Your task to perform on an android device: open app "Spotify" (install if not already installed) and enter user name: "infallible@icloud.com" and password: "implored" Image 0: 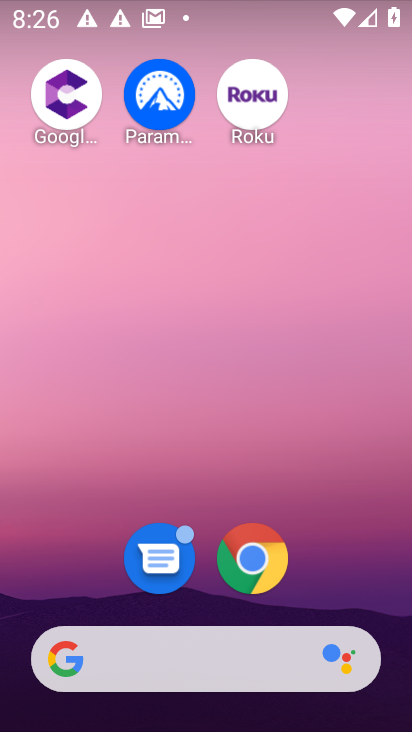
Step 0: drag from (246, 651) to (324, 1)
Your task to perform on an android device: open app "Spotify" (install if not already installed) and enter user name: "infallible@icloud.com" and password: "implored" Image 1: 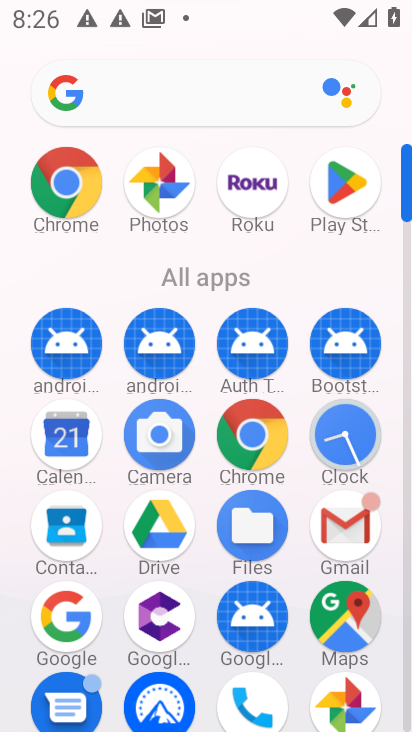
Step 1: click (340, 190)
Your task to perform on an android device: open app "Spotify" (install if not already installed) and enter user name: "infallible@icloud.com" and password: "implored" Image 2: 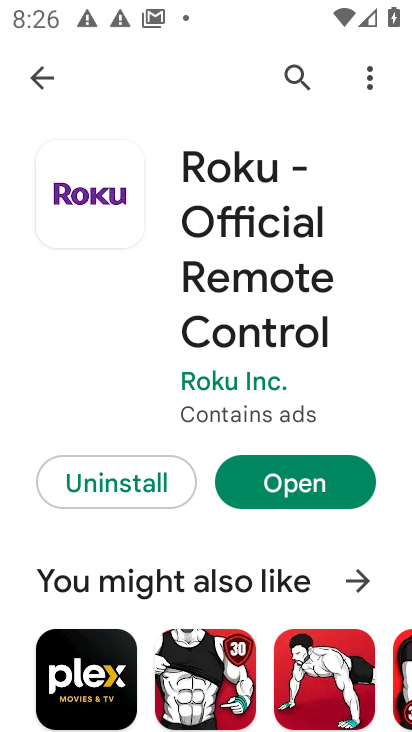
Step 2: click (307, 71)
Your task to perform on an android device: open app "Spotify" (install if not already installed) and enter user name: "infallible@icloud.com" and password: "implored" Image 3: 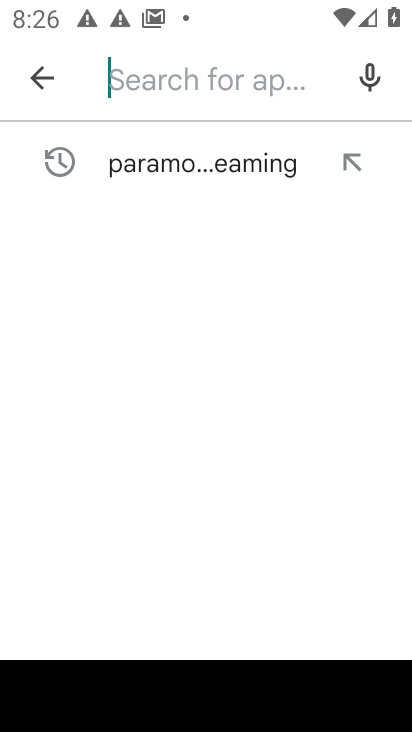
Step 3: type "spotify"
Your task to perform on an android device: open app "Spotify" (install if not already installed) and enter user name: "infallible@icloud.com" and password: "implored" Image 4: 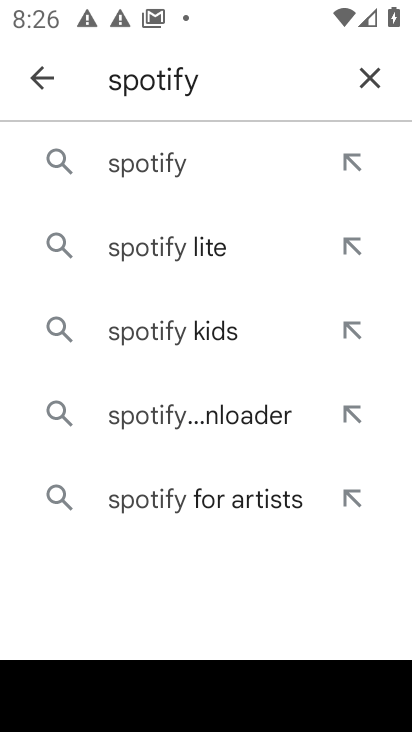
Step 4: click (118, 166)
Your task to perform on an android device: open app "Spotify" (install if not already installed) and enter user name: "infallible@icloud.com" and password: "implored" Image 5: 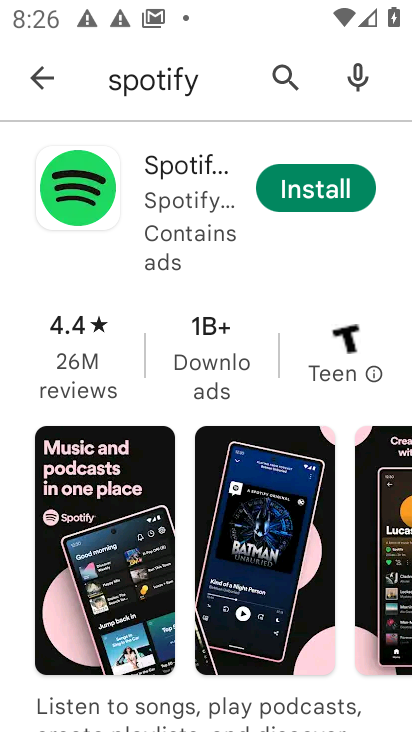
Step 5: click (312, 183)
Your task to perform on an android device: open app "Spotify" (install if not already installed) and enter user name: "infallible@icloud.com" and password: "implored" Image 6: 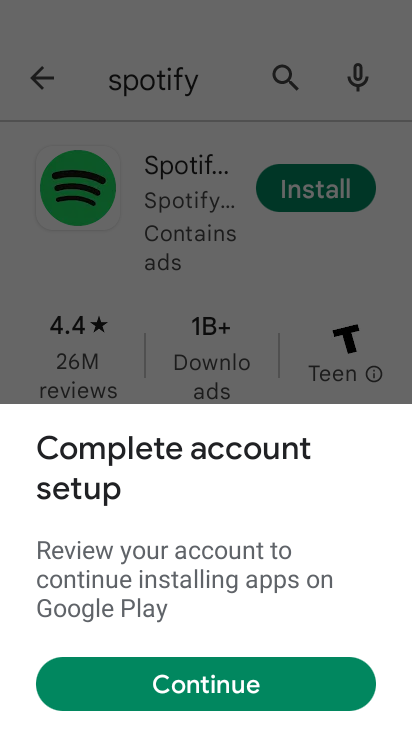
Step 6: click (123, 656)
Your task to perform on an android device: open app "Spotify" (install if not already installed) and enter user name: "infallible@icloud.com" and password: "implored" Image 7: 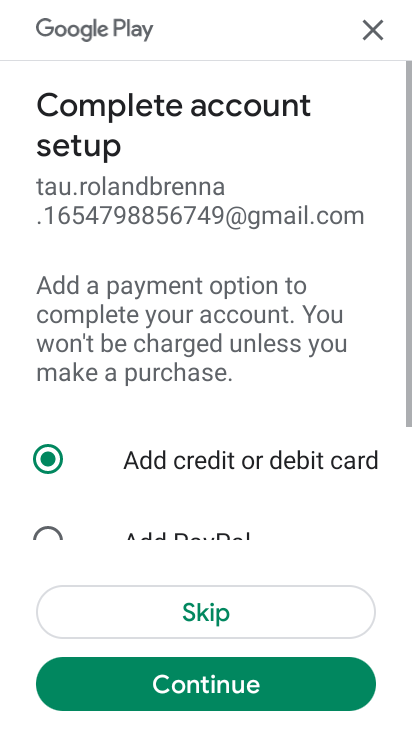
Step 7: click (125, 627)
Your task to perform on an android device: open app "Spotify" (install if not already installed) and enter user name: "infallible@icloud.com" and password: "implored" Image 8: 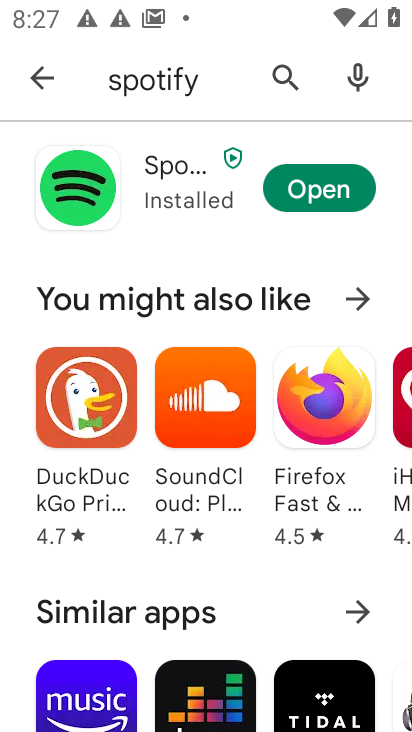
Step 8: click (342, 185)
Your task to perform on an android device: open app "Spotify" (install if not already installed) and enter user name: "infallible@icloud.com" and password: "implored" Image 9: 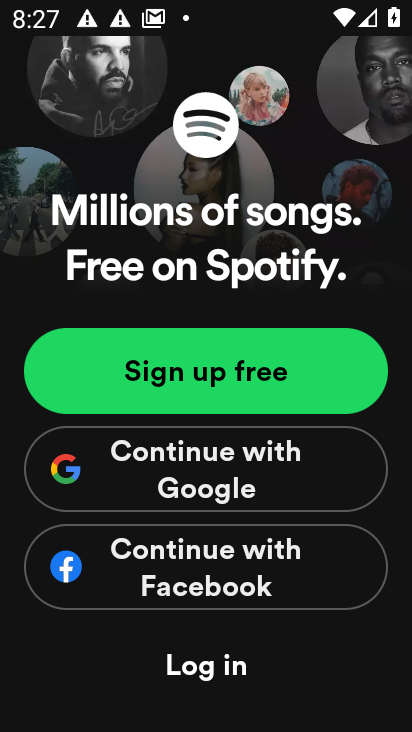
Step 9: click (204, 662)
Your task to perform on an android device: open app "Spotify" (install if not already installed) and enter user name: "infallible@icloud.com" and password: "implored" Image 10: 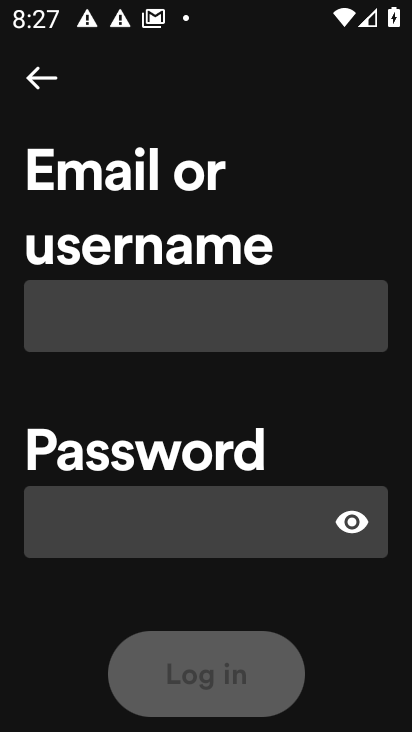
Step 10: click (153, 351)
Your task to perform on an android device: open app "Spotify" (install if not already installed) and enter user name: "infallible@icloud.com" and password: "implored" Image 11: 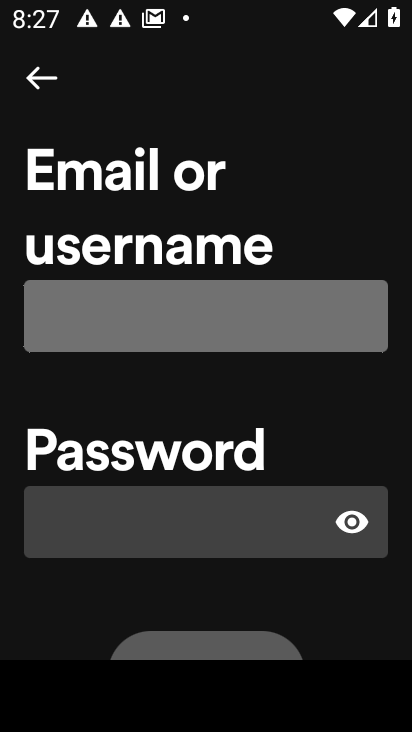
Step 11: type ""
Your task to perform on an android device: open app "Spotify" (install if not already installed) and enter user name: "infallible@icloud.com" and password: "implored" Image 12: 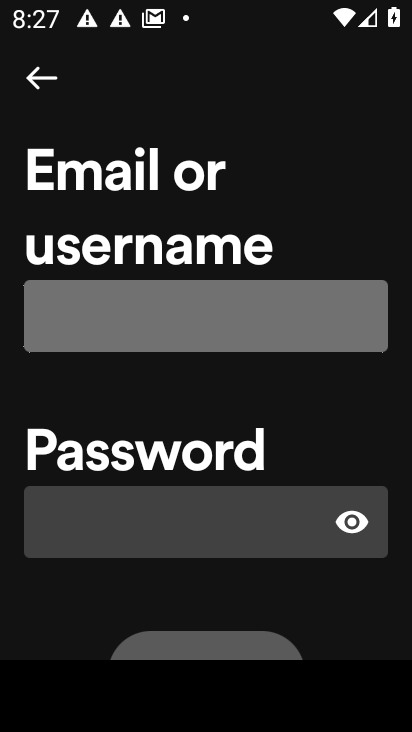
Step 12: type "infallible@icloud.com"
Your task to perform on an android device: open app "Spotify" (install if not already installed) and enter user name: "infallible@icloud.com" and password: "implored" Image 13: 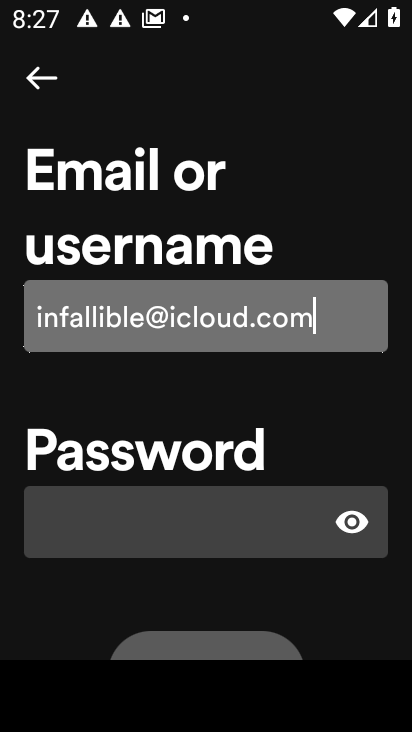
Step 13: click (256, 532)
Your task to perform on an android device: open app "Spotify" (install if not already installed) and enter user name: "infallible@icloud.com" and password: "implored" Image 14: 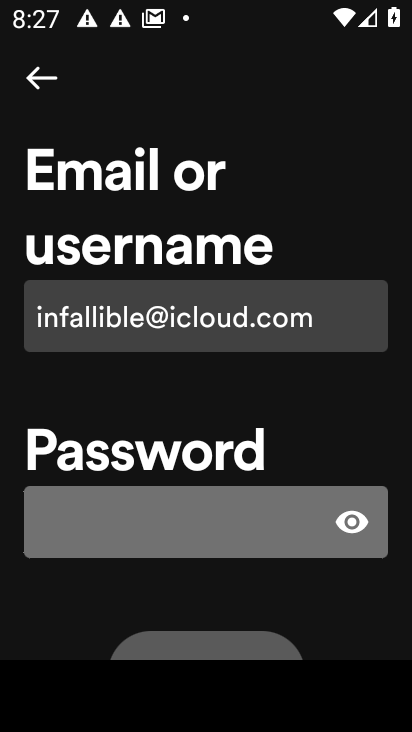
Step 14: type "implored"
Your task to perform on an android device: open app "Spotify" (install if not already installed) and enter user name: "infallible@icloud.com" and password: "implored" Image 15: 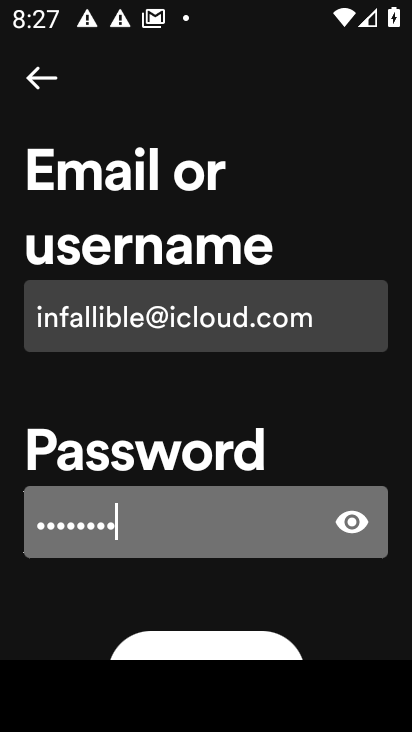
Step 15: task complete